Your task to perform on an android device: turn on wifi Image 0: 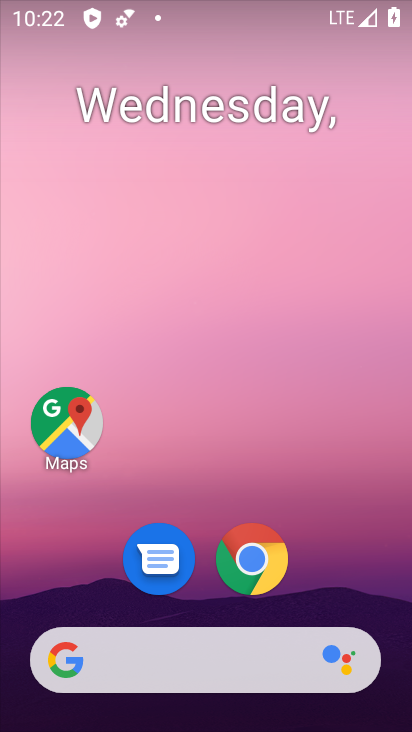
Step 0: drag from (359, 495) to (163, 730)
Your task to perform on an android device: turn on wifi Image 1: 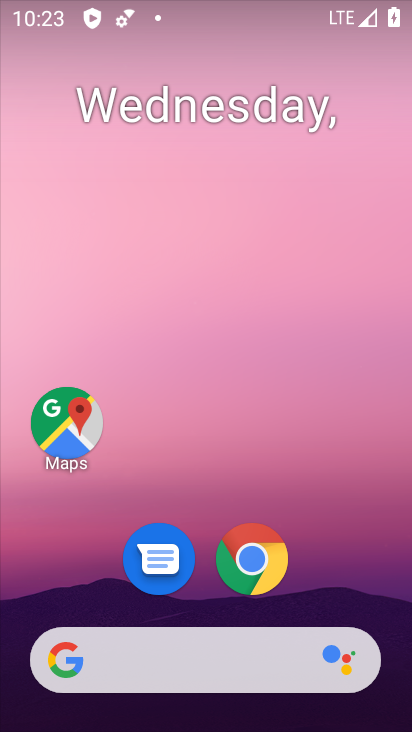
Step 1: drag from (358, 556) to (290, 0)
Your task to perform on an android device: turn on wifi Image 2: 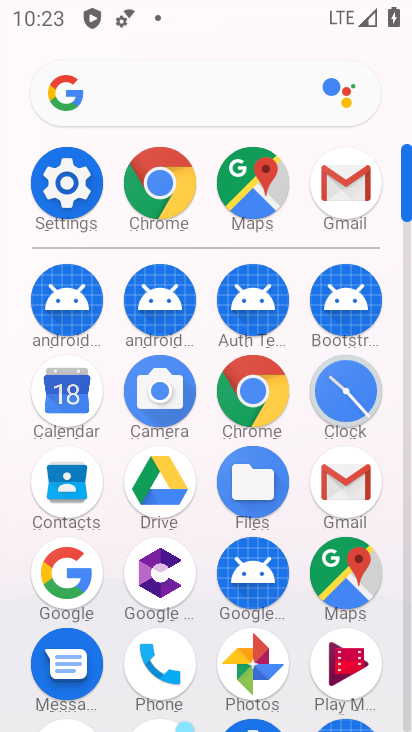
Step 2: click (60, 196)
Your task to perform on an android device: turn on wifi Image 3: 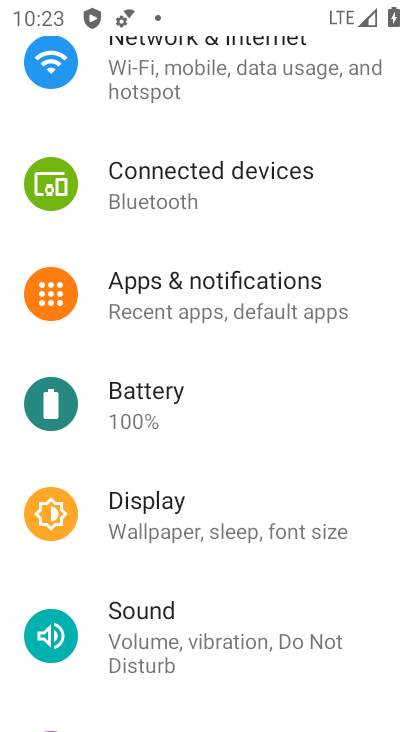
Step 3: drag from (240, 325) to (228, 626)
Your task to perform on an android device: turn on wifi Image 4: 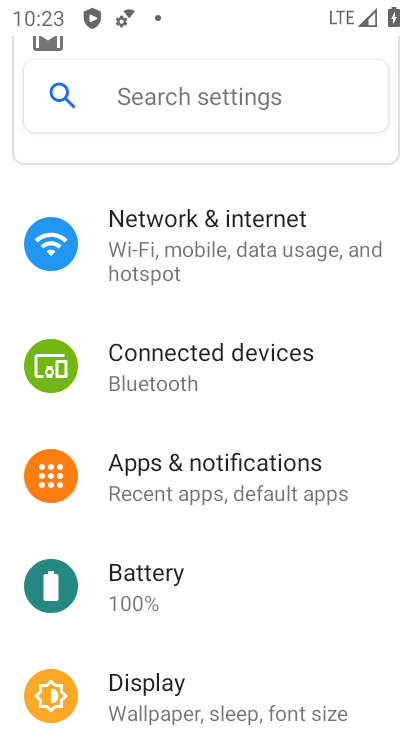
Step 4: click (176, 232)
Your task to perform on an android device: turn on wifi Image 5: 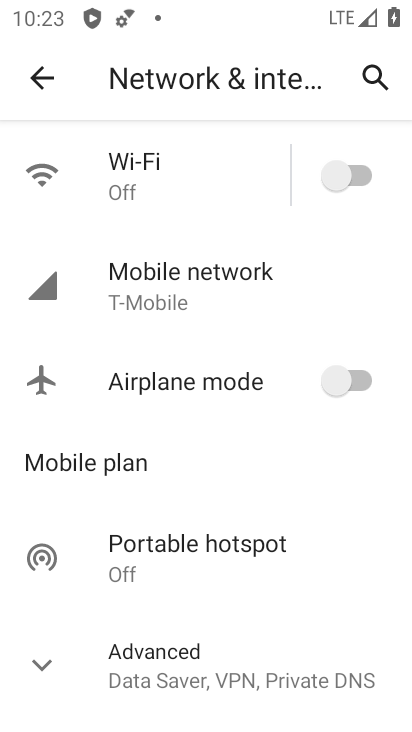
Step 5: click (341, 185)
Your task to perform on an android device: turn on wifi Image 6: 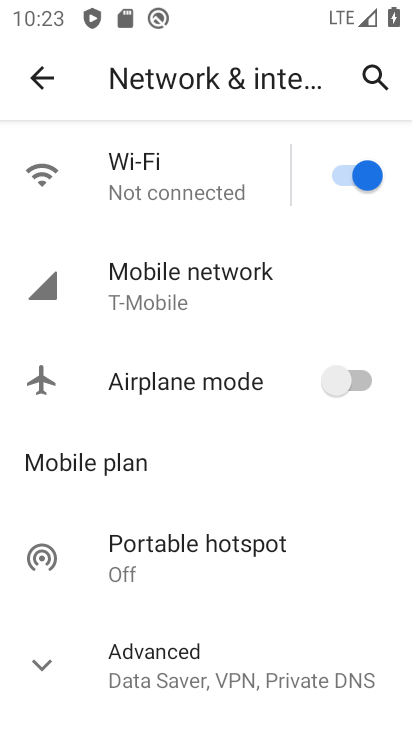
Step 6: task complete